Your task to perform on an android device: Open the phone app and click the voicemail tab. Image 0: 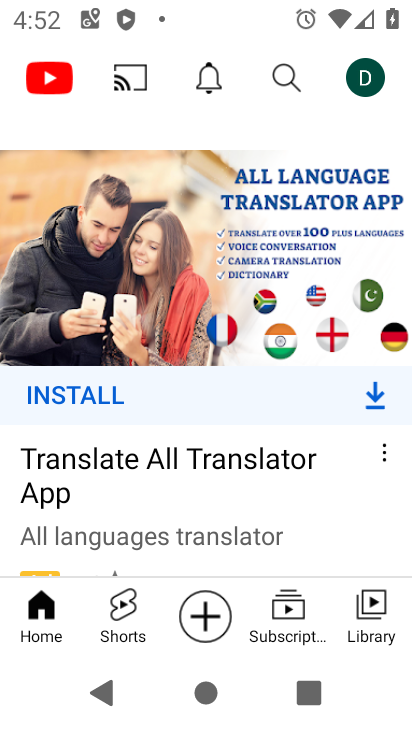
Step 0: press home button
Your task to perform on an android device: Open the phone app and click the voicemail tab. Image 1: 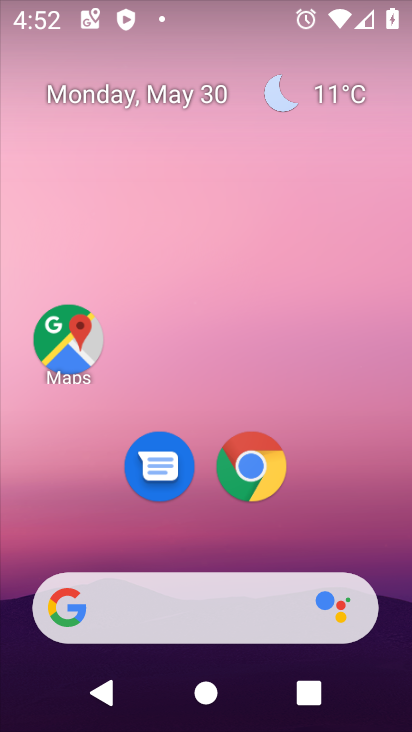
Step 1: drag from (340, 499) to (312, 153)
Your task to perform on an android device: Open the phone app and click the voicemail tab. Image 2: 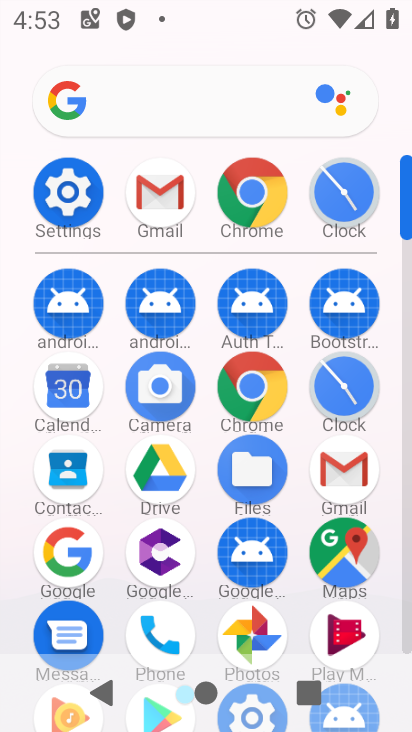
Step 2: click (163, 633)
Your task to perform on an android device: Open the phone app and click the voicemail tab. Image 3: 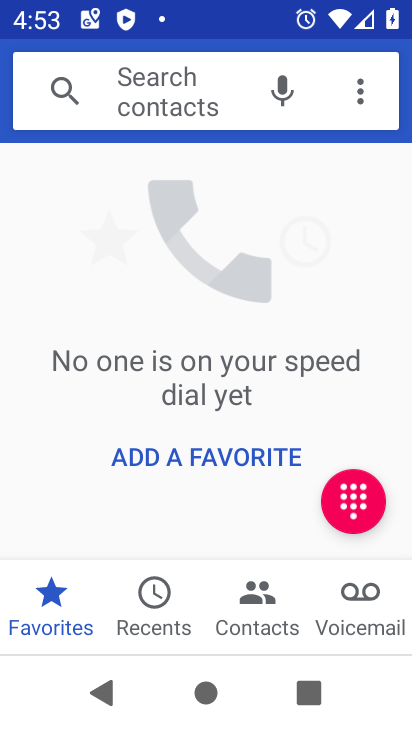
Step 3: click (368, 618)
Your task to perform on an android device: Open the phone app and click the voicemail tab. Image 4: 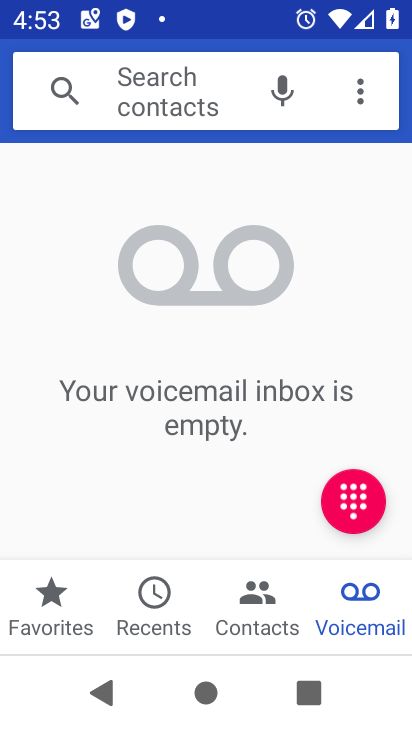
Step 4: task complete